Your task to perform on an android device: change your default location settings in chrome Image 0: 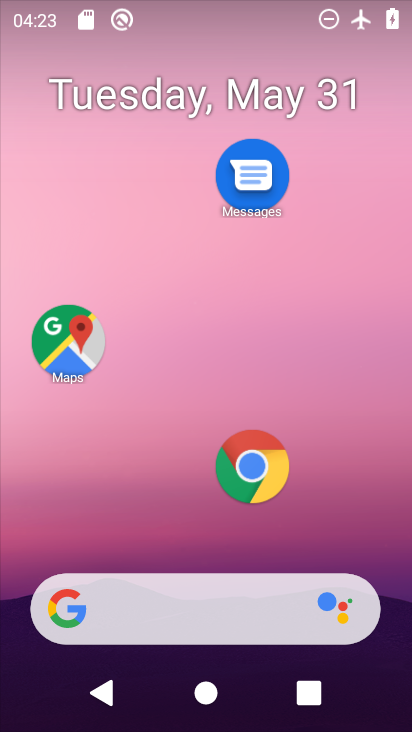
Step 0: click (248, 461)
Your task to perform on an android device: change your default location settings in chrome Image 1: 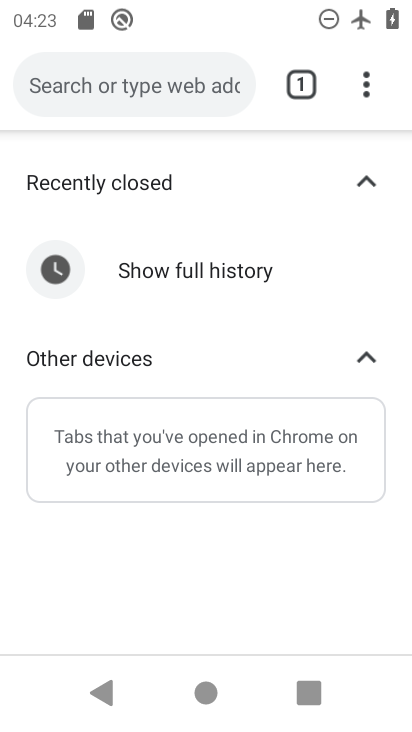
Step 1: drag from (363, 88) to (131, 510)
Your task to perform on an android device: change your default location settings in chrome Image 2: 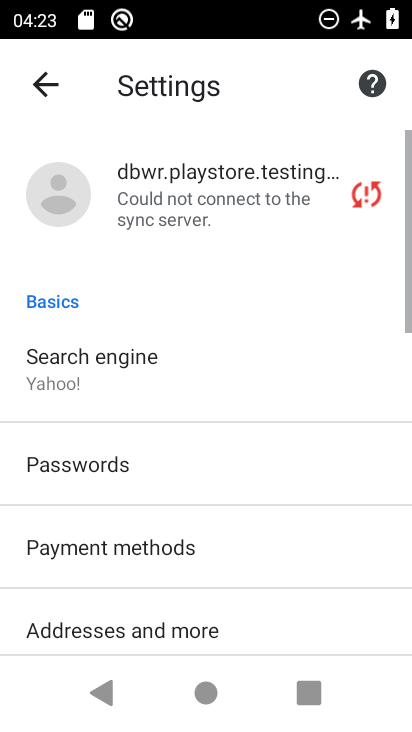
Step 2: drag from (120, 608) to (194, 215)
Your task to perform on an android device: change your default location settings in chrome Image 3: 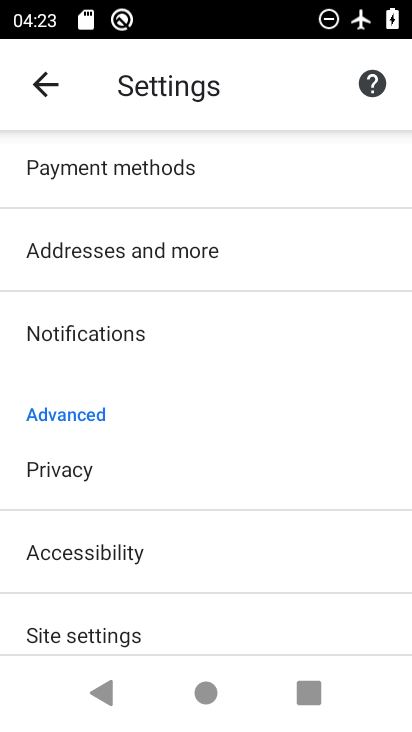
Step 3: drag from (170, 622) to (240, 116)
Your task to perform on an android device: change your default location settings in chrome Image 4: 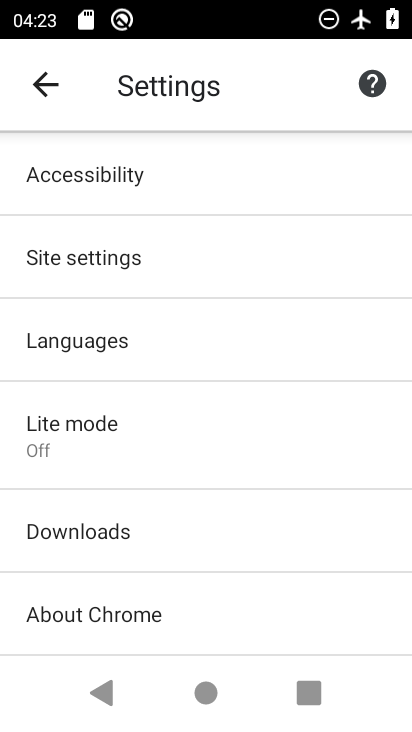
Step 4: click (76, 245)
Your task to perform on an android device: change your default location settings in chrome Image 5: 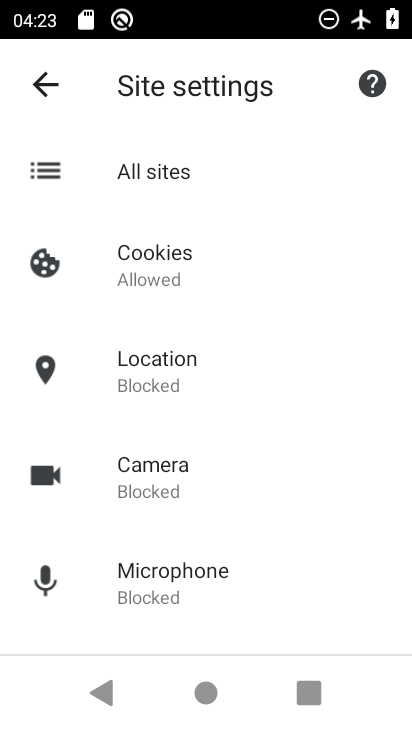
Step 5: click (150, 369)
Your task to perform on an android device: change your default location settings in chrome Image 6: 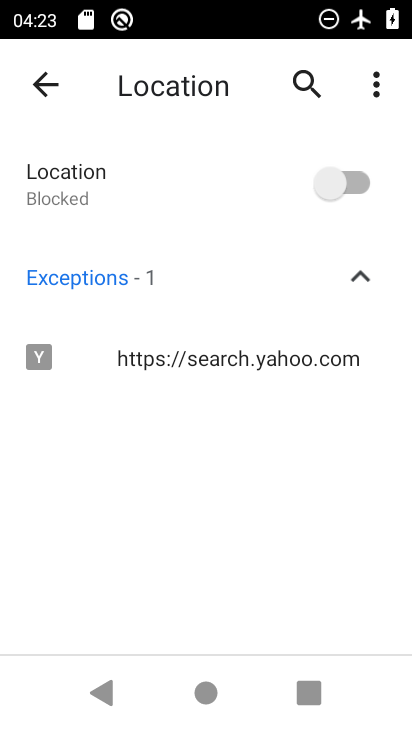
Step 6: click (347, 173)
Your task to perform on an android device: change your default location settings in chrome Image 7: 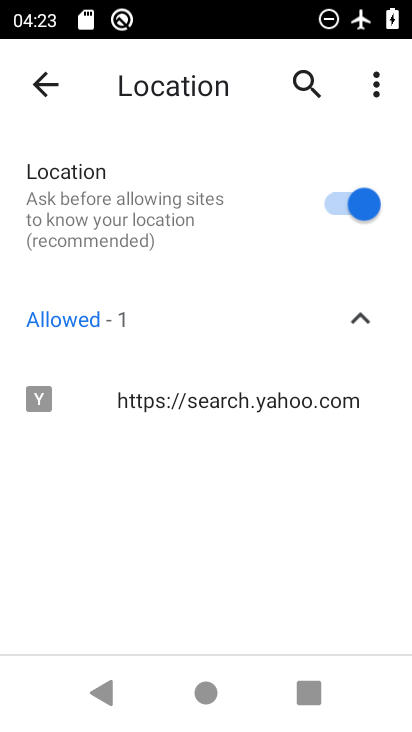
Step 7: task complete